Your task to perform on an android device: Search for Mexican restaurants on Maps Image 0: 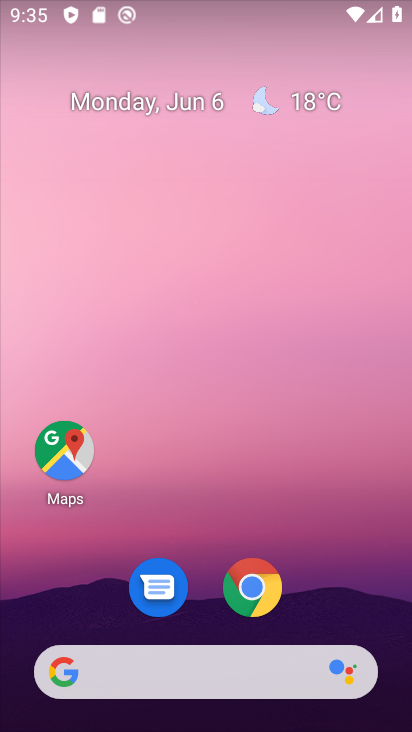
Step 0: click (48, 465)
Your task to perform on an android device: Search for Mexican restaurants on Maps Image 1: 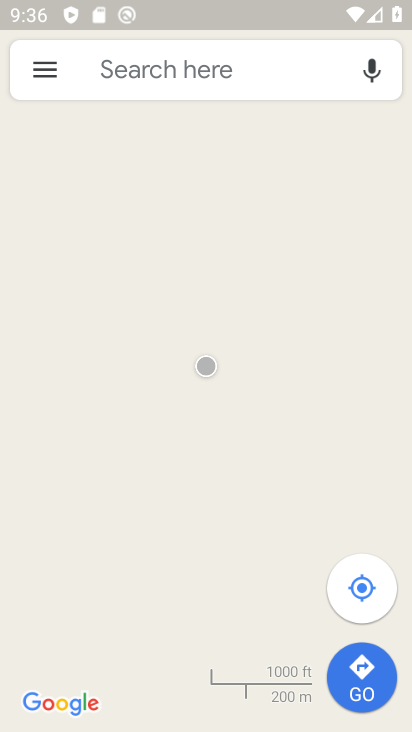
Step 1: click (183, 62)
Your task to perform on an android device: Search for Mexican restaurants on Maps Image 2: 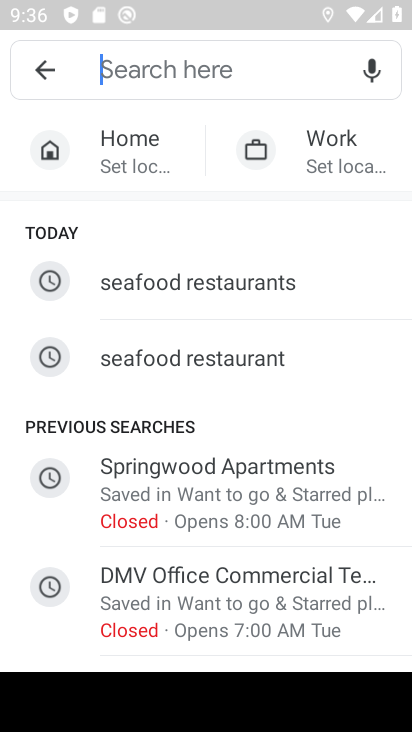
Step 2: type "Mexican restaurant"
Your task to perform on an android device: Search for Mexican restaurants on Maps Image 3: 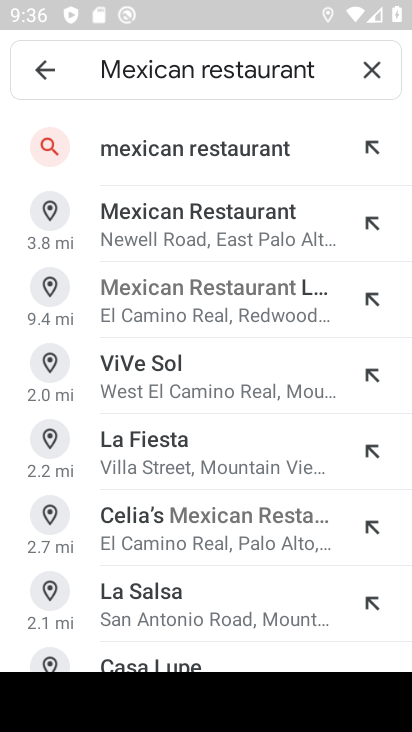
Step 3: click (278, 147)
Your task to perform on an android device: Search for Mexican restaurants on Maps Image 4: 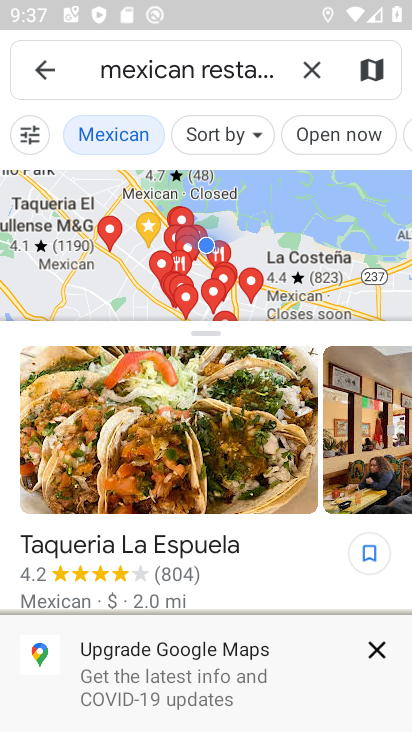
Step 4: task complete